Your task to perform on an android device: open sync settings in chrome Image 0: 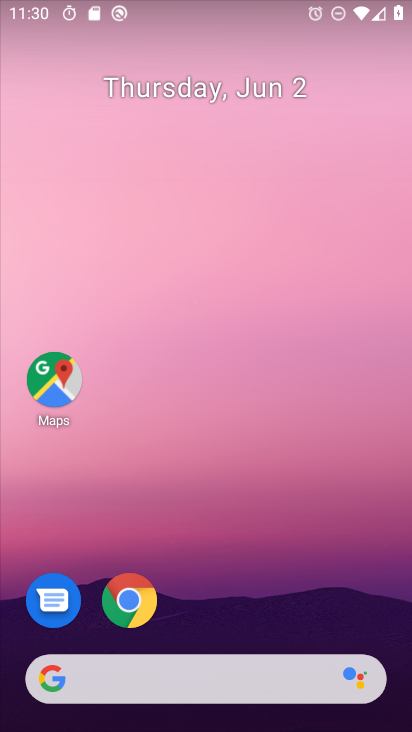
Step 0: click (127, 606)
Your task to perform on an android device: open sync settings in chrome Image 1: 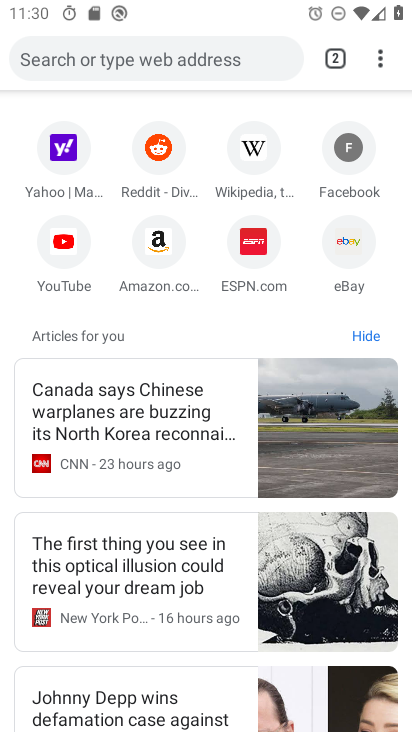
Step 1: click (380, 62)
Your task to perform on an android device: open sync settings in chrome Image 2: 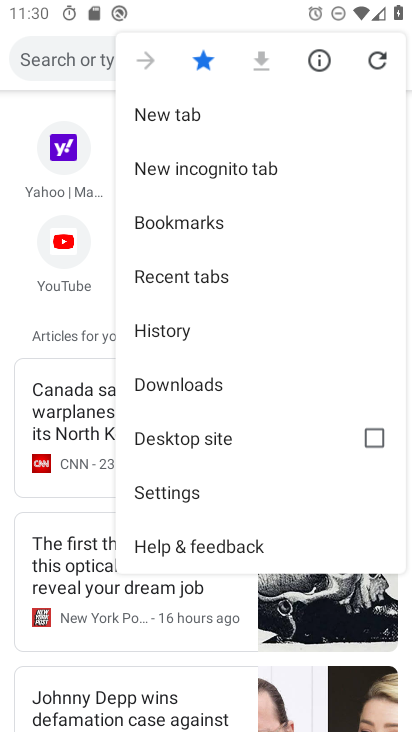
Step 2: click (211, 493)
Your task to perform on an android device: open sync settings in chrome Image 3: 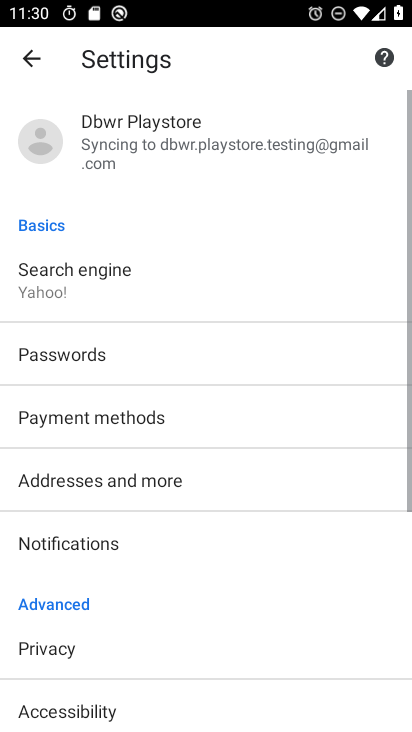
Step 3: drag from (204, 617) to (184, 81)
Your task to perform on an android device: open sync settings in chrome Image 4: 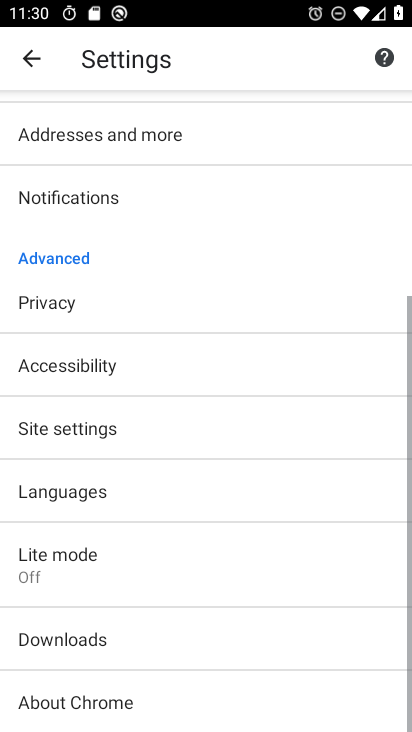
Step 4: click (72, 424)
Your task to perform on an android device: open sync settings in chrome Image 5: 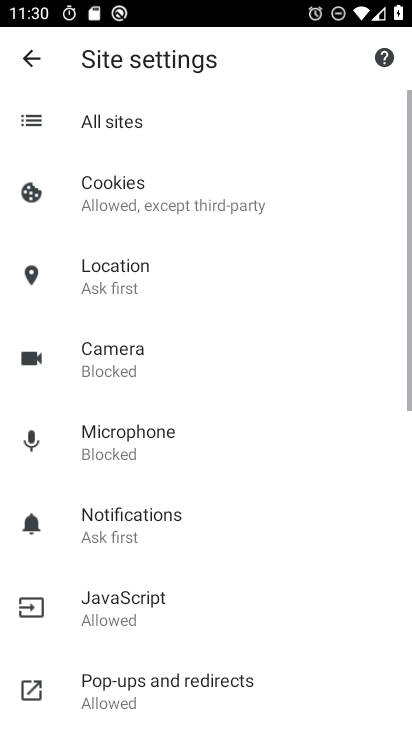
Step 5: drag from (204, 641) to (189, 157)
Your task to perform on an android device: open sync settings in chrome Image 6: 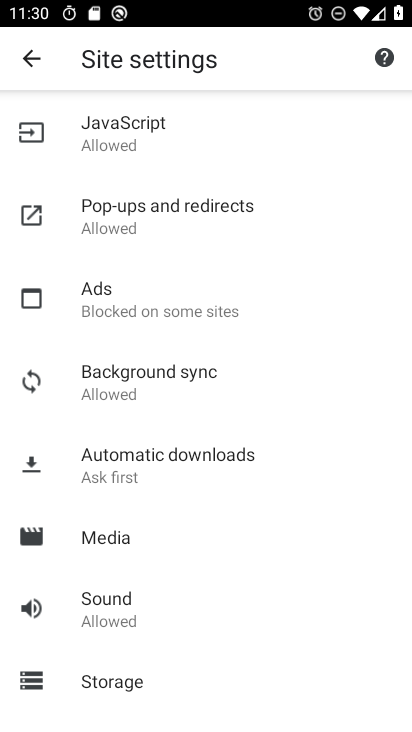
Step 6: click (143, 377)
Your task to perform on an android device: open sync settings in chrome Image 7: 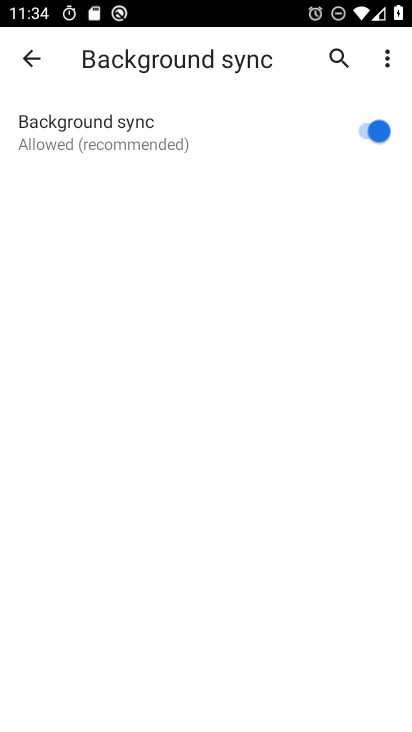
Step 7: task complete